Your task to perform on an android device: turn off picture-in-picture Image 0: 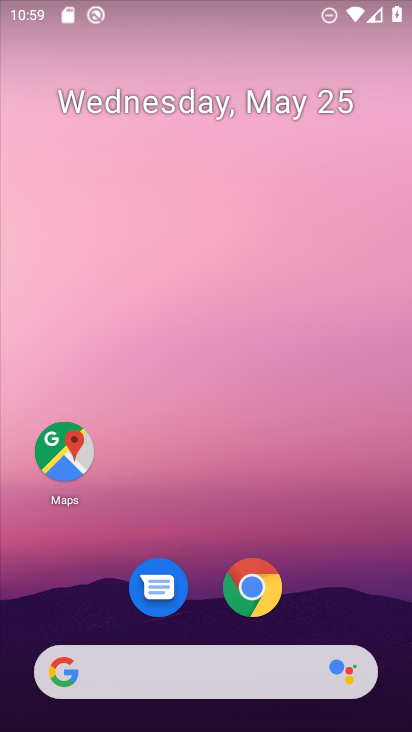
Step 0: drag from (321, 458) to (257, 27)
Your task to perform on an android device: turn off picture-in-picture Image 1: 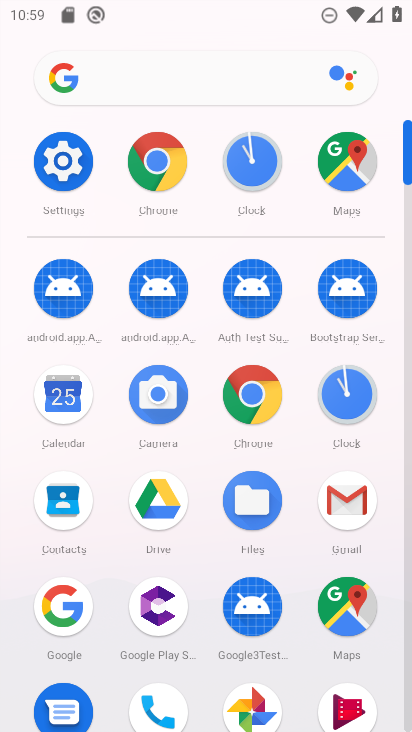
Step 1: click (60, 156)
Your task to perform on an android device: turn off picture-in-picture Image 2: 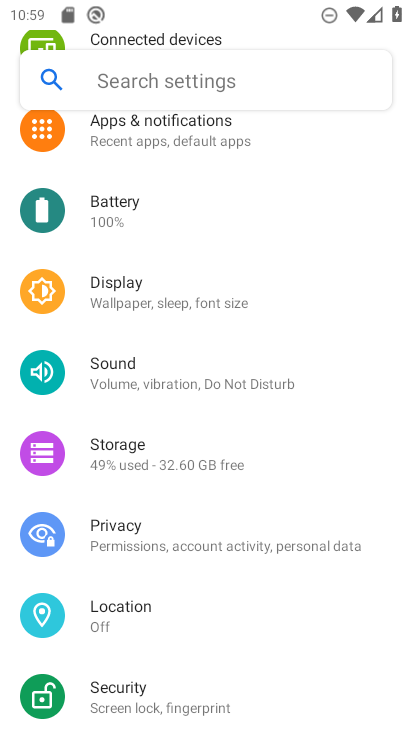
Step 2: drag from (273, 630) to (271, 155)
Your task to perform on an android device: turn off picture-in-picture Image 3: 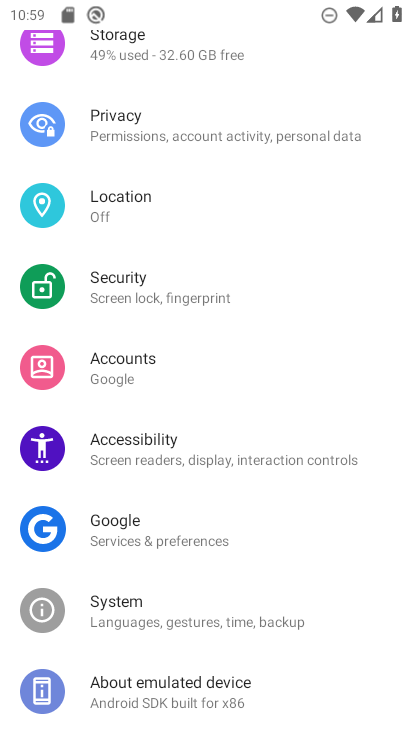
Step 3: drag from (271, 156) to (273, 649)
Your task to perform on an android device: turn off picture-in-picture Image 4: 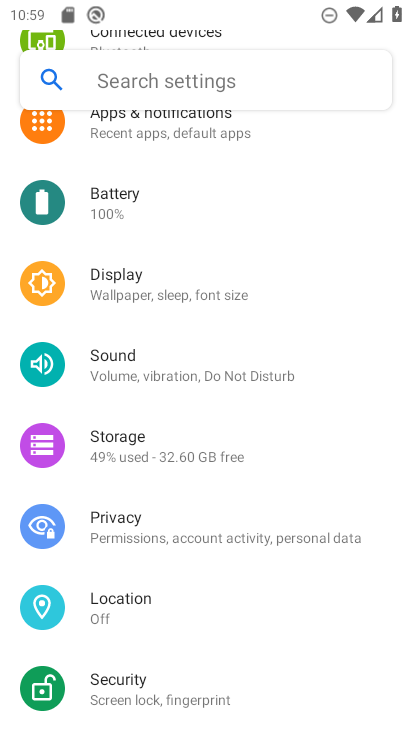
Step 4: click (189, 126)
Your task to perform on an android device: turn off picture-in-picture Image 5: 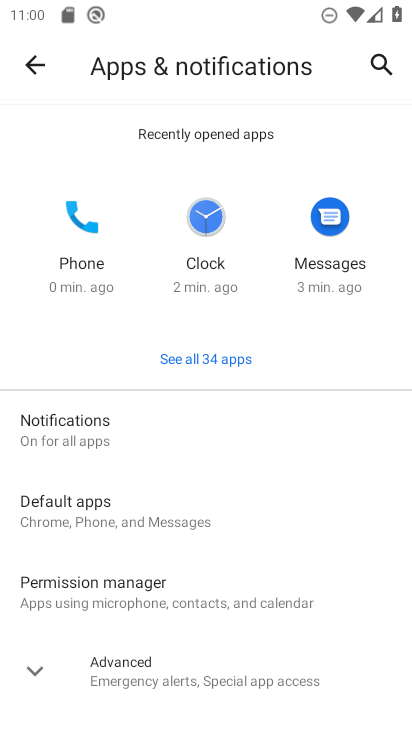
Step 5: click (51, 678)
Your task to perform on an android device: turn off picture-in-picture Image 6: 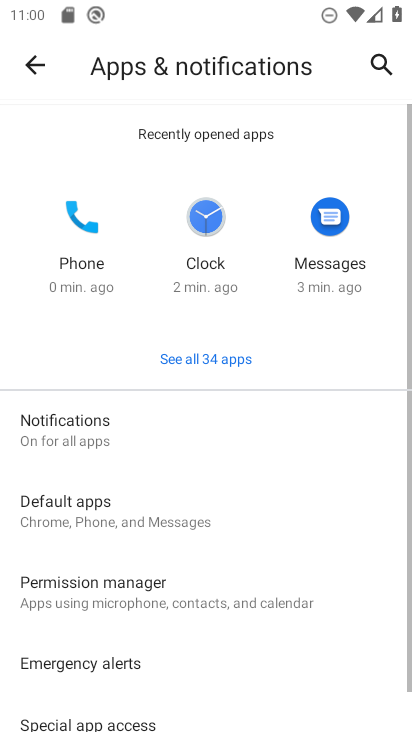
Step 6: drag from (298, 628) to (330, 270)
Your task to perform on an android device: turn off picture-in-picture Image 7: 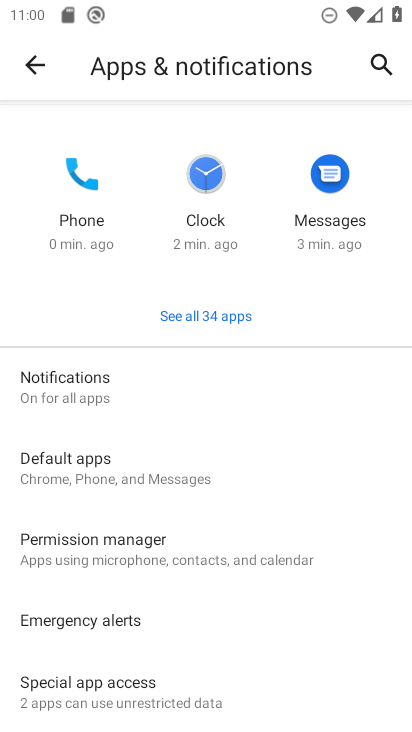
Step 7: click (156, 686)
Your task to perform on an android device: turn off picture-in-picture Image 8: 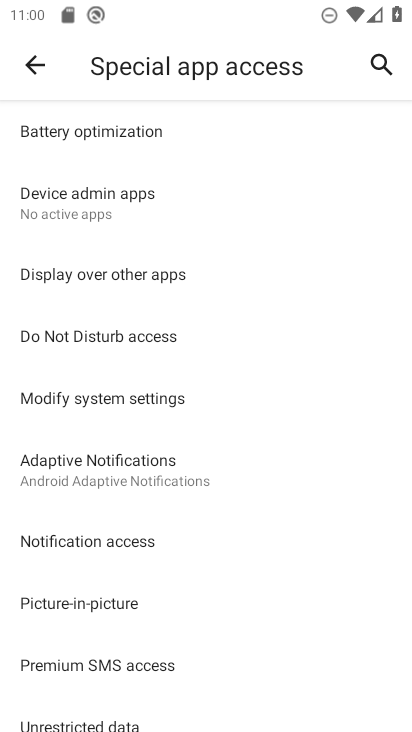
Step 8: click (109, 602)
Your task to perform on an android device: turn off picture-in-picture Image 9: 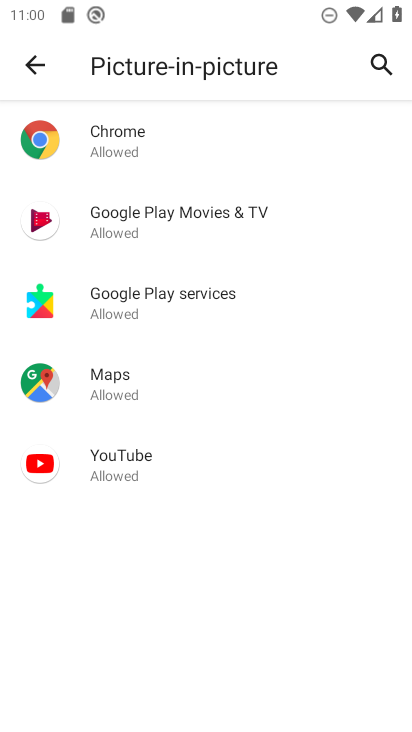
Step 9: click (168, 150)
Your task to perform on an android device: turn off picture-in-picture Image 10: 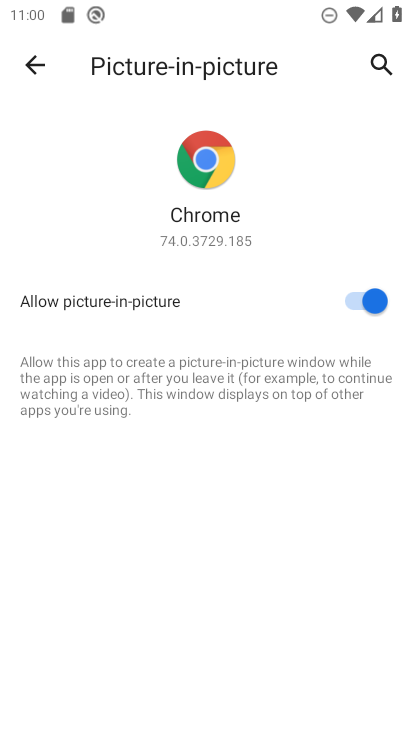
Step 10: click (373, 289)
Your task to perform on an android device: turn off picture-in-picture Image 11: 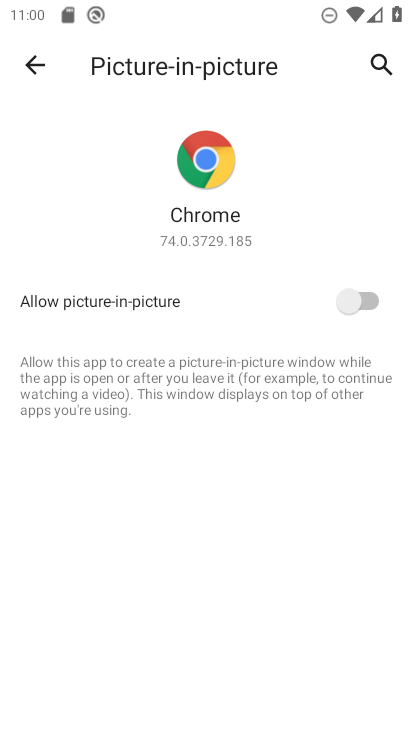
Step 11: click (37, 62)
Your task to perform on an android device: turn off picture-in-picture Image 12: 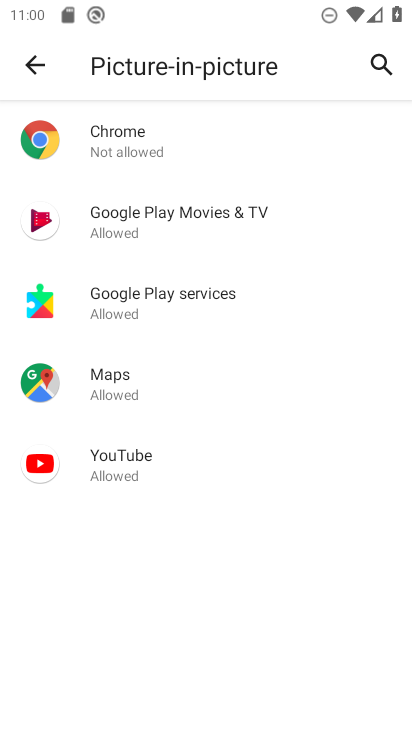
Step 12: click (123, 204)
Your task to perform on an android device: turn off picture-in-picture Image 13: 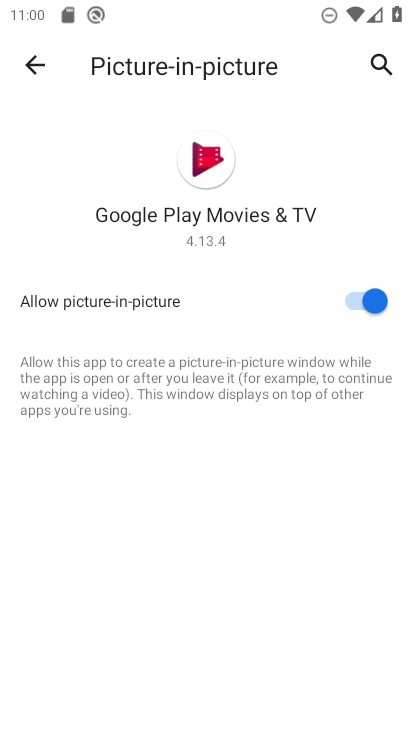
Step 13: click (355, 309)
Your task to perform on an android device: turn off picture-in-picture Image 14: 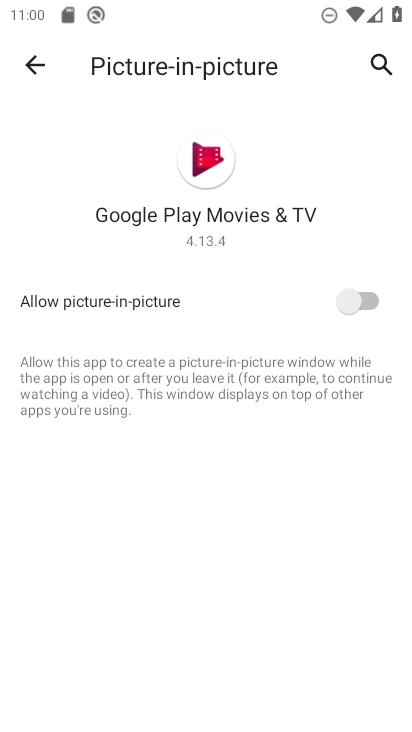
Step 14: click (41, 60)
Your task to perform on an android device: turn off picture-in-picture Image 15: 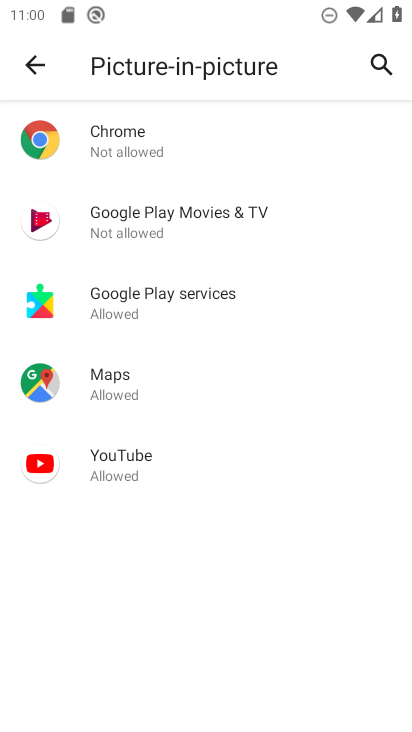
Step 15: click (156, 296)
Your task to perform on an android device: turn off picture-in-picture Image 16: 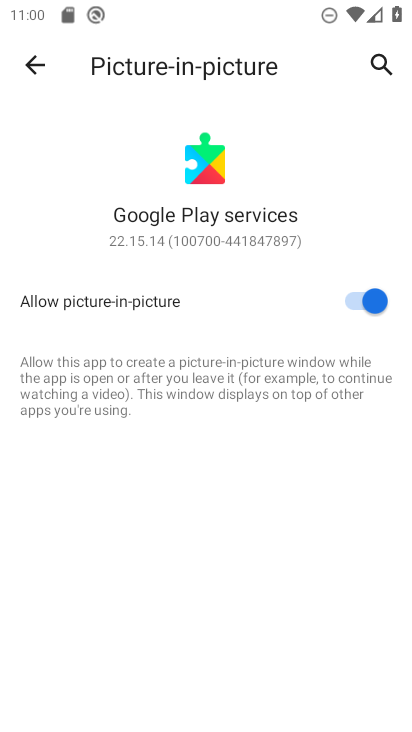
Step 16: click (356, 297)
Your task to perform on an android device: turn off picture-in-picture Image 17: 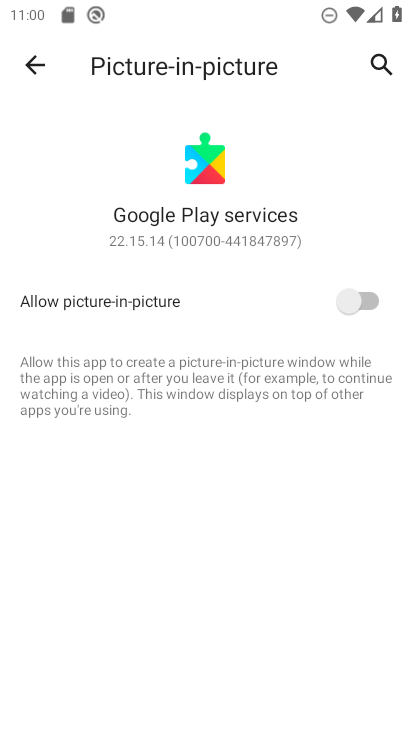
Step 17: click (38, 66)
Your task to perform on an android device: turn off picture-in-picture Image 18: 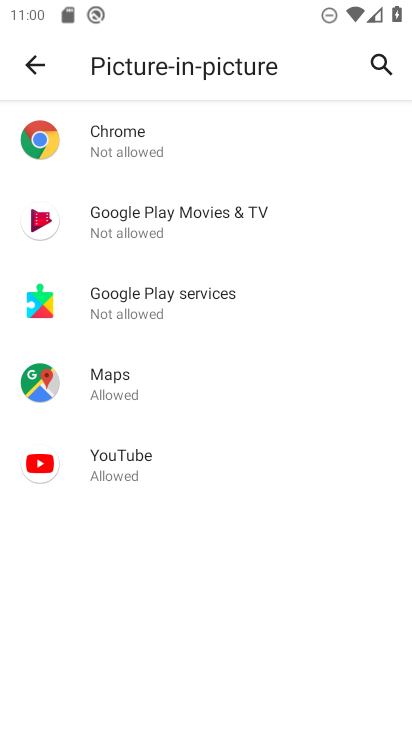
Step 18: click (140, 384)
Your task to perform on an android device: turn off picture-in-picture Image 19: 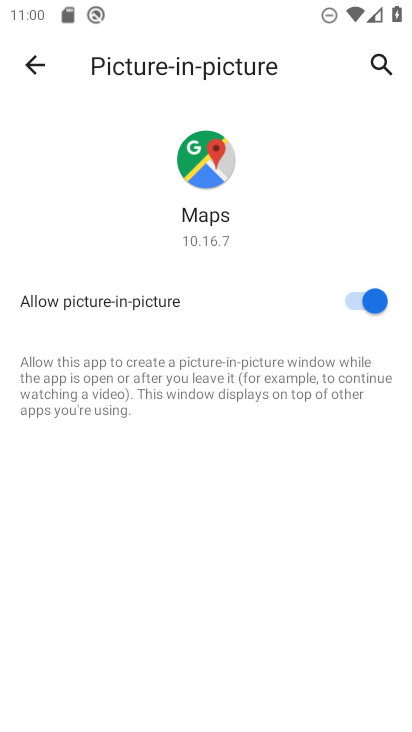
Step 19: click (377, 298)
Your task to perform on an android device: turn off picture-in-picture Image 20: 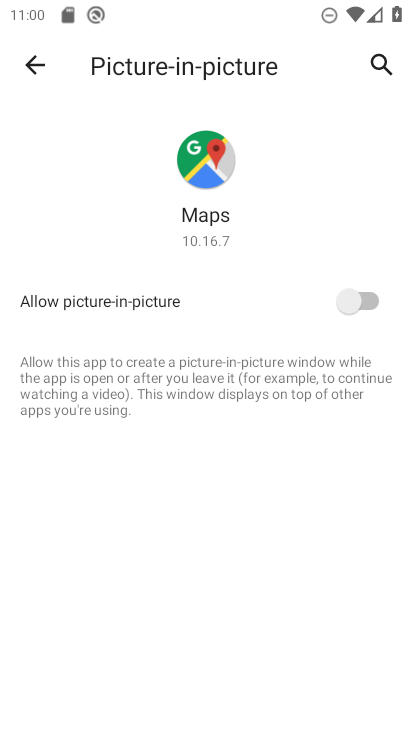
Step 20: click (29, 60)
Your task to perform on an android device: turn off picture-in-picture Image 21: 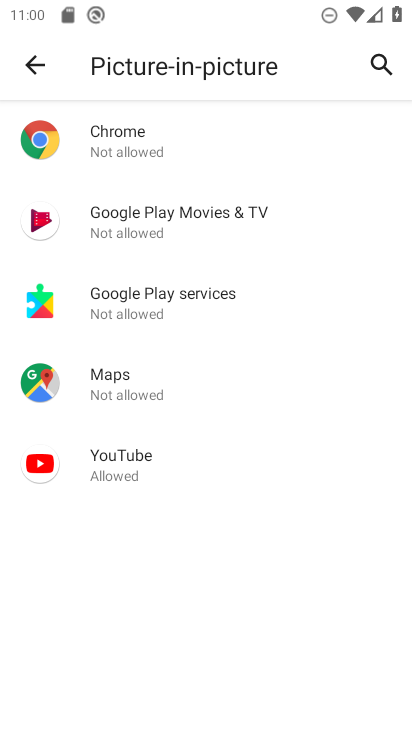
Step 21: click (126, 456)
Your task to perform on an android device: turn off picture-in-picture Image 22: 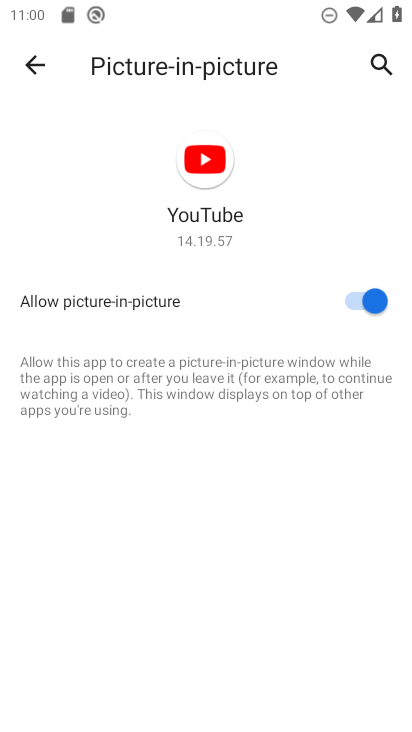
Step 22: click (353, 299)
Your task to perform on an android device: turn off picture-in-picture Image 23: 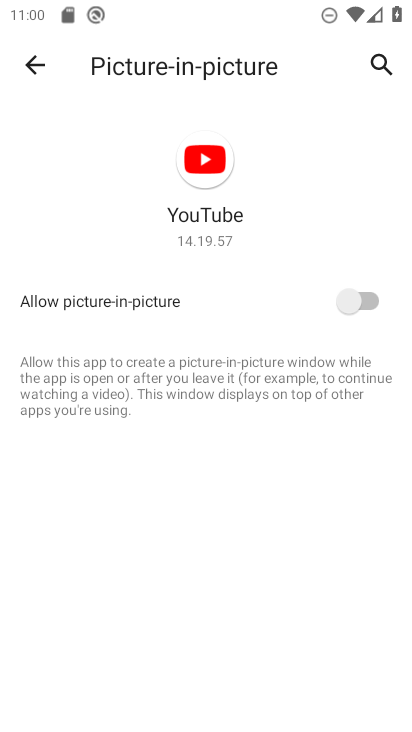
Step 23: click (40, 70)
Your task to perform on an android device: turn off picture-in-picture Image 24: 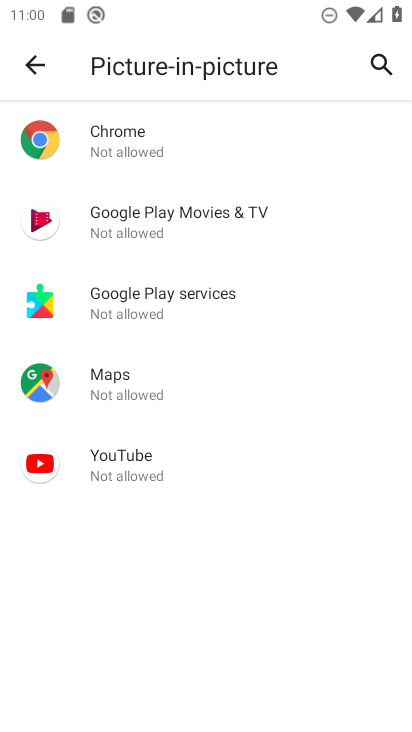
Step 24: task complete